Your task to perform on an android device: change your default location settings in chrome Image 0: 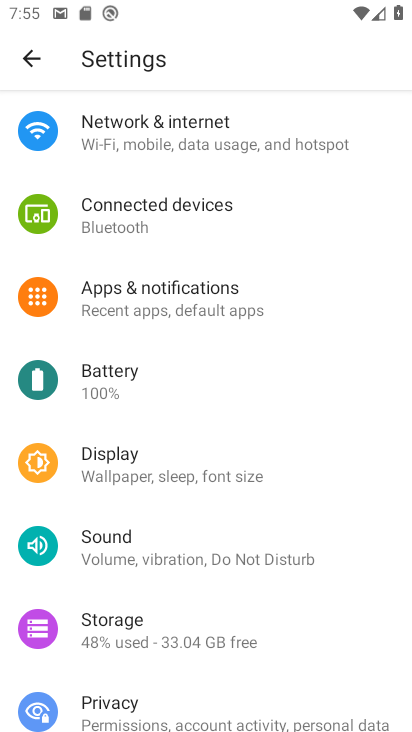
Step 0: press home button
Your task to perform on an android device: change your default location settings in chrome Image 1: 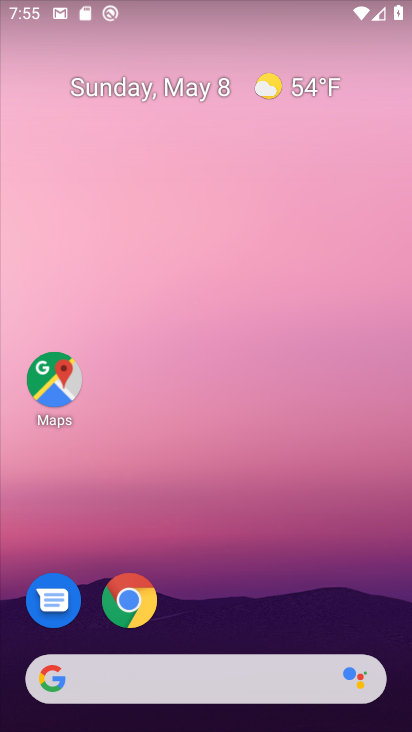
Step 1: click (127, 597)
Your task to perform on an android device: change your default location settings in chrome Image 2: 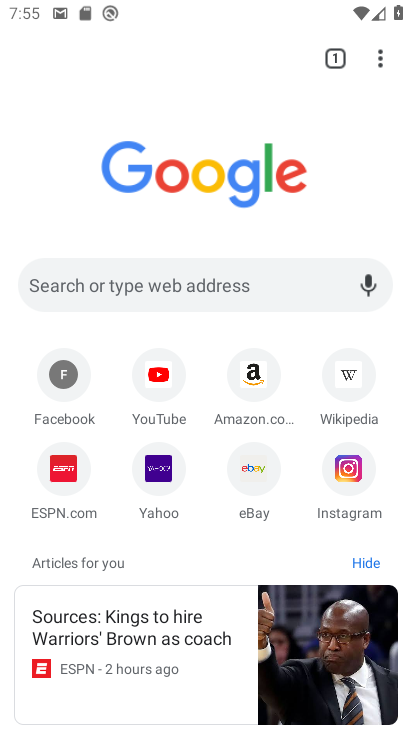
Step 2: click (383, 66)
Your task to perform on an android device: change your default location settings in chrome Image 3: 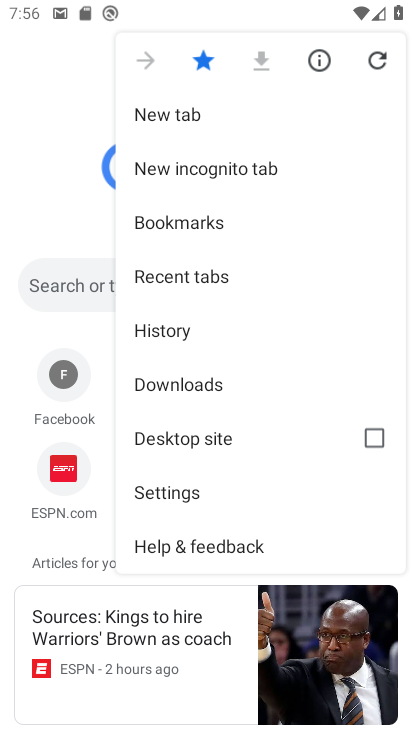
Step 3: click (195, 490)
Your task to perform on an android device: change your default location settings in chrome Image 4: 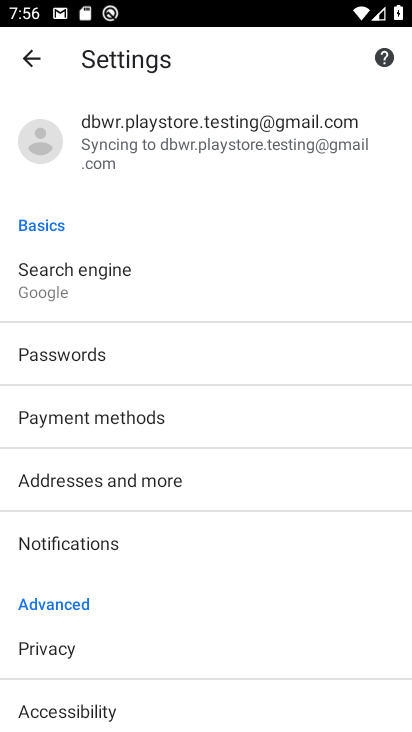
Step 4: drag from (167, 576) to (203, 409)
Your task to perform on an android device: change your default location settings in chrome Image 5: 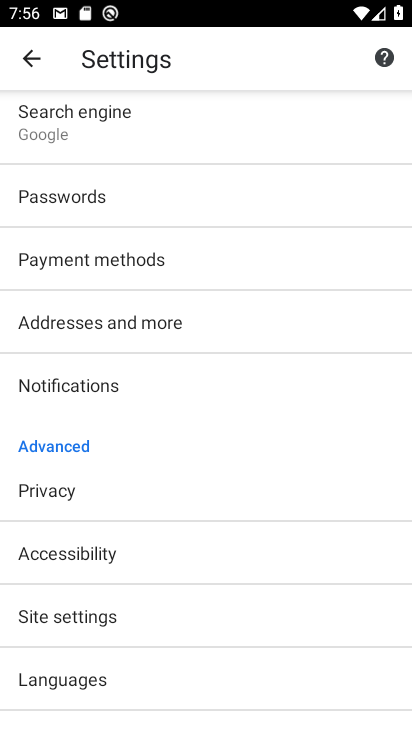
Step 5: click (80, 608)
Your task to perform on an android device: change your default location settings in chrome Image 6: 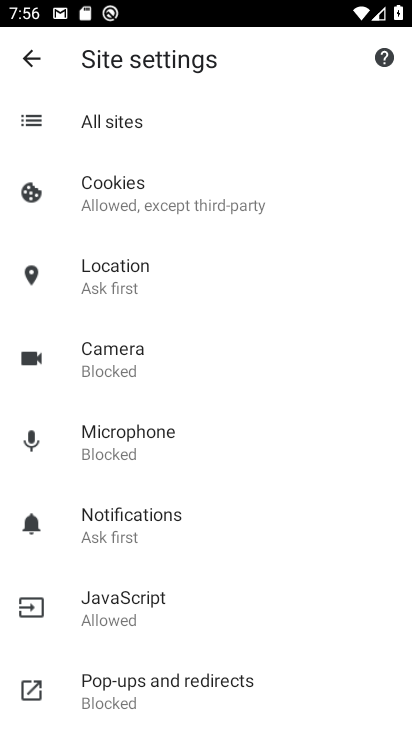
Step 6: click (216, 293)
Your task to perform on an android device: change your default location settings in chrome Image 7: 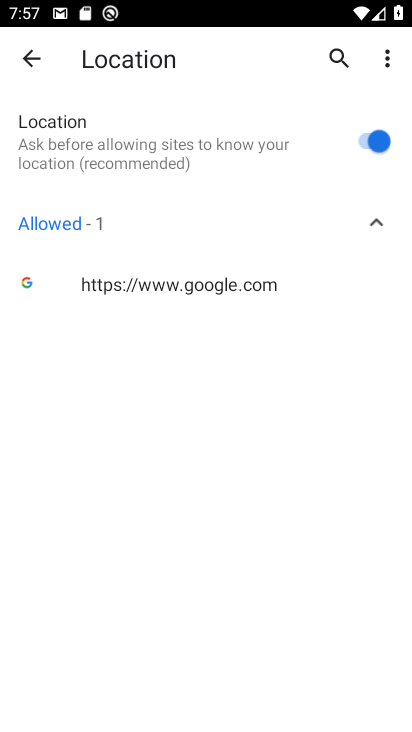
Step 7: click (369, 140)
Your task to perform on an android device: change your default location settings in chrome Image 8: 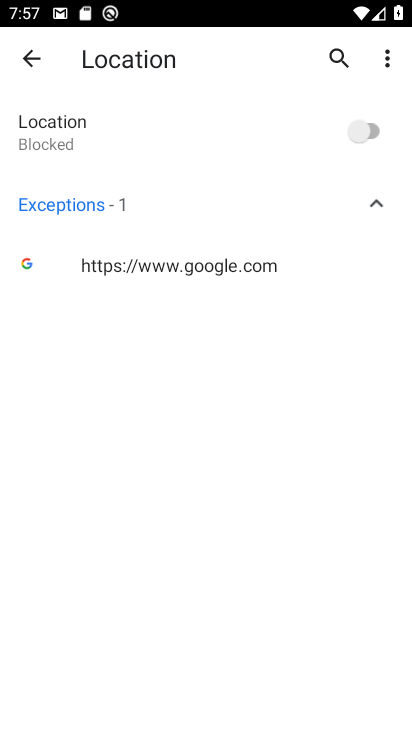
Step 8: task complete